Your task to perform on an android device: Do I have any events tomorrow? Image 0: 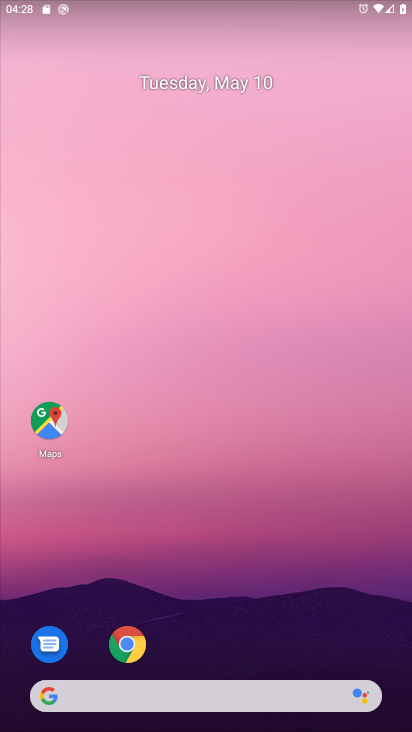
Step 0: drag from (219, 652) to (191, 243)
Your task to perform on an android device: Do I have any events tomorrow? Image 1: 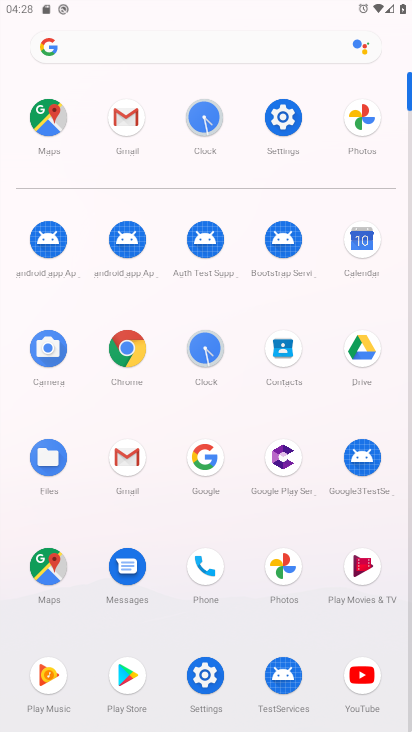
Step 1: click (363, 253)
Your task to perform on an android device: Do I have any events tomorrow? Image 2: 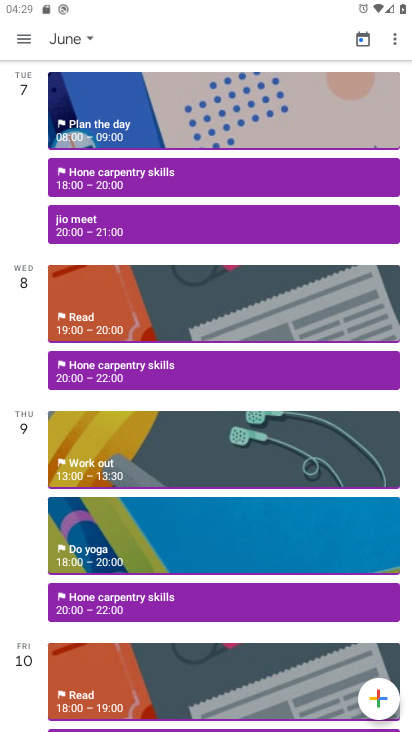
Step 2: click (15, 37)
Your task to perform on an android device: Do I have any events tomorrow? Image 3: 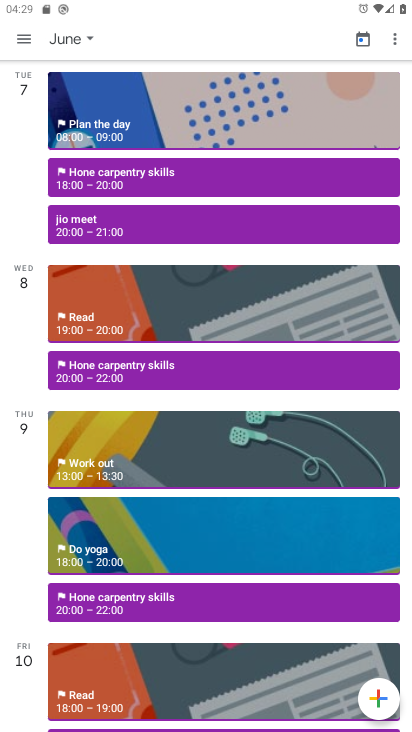
Step 3: click (19, 39)
Your task to perform on an android device: Do I have any events tomorrow? Image 4: 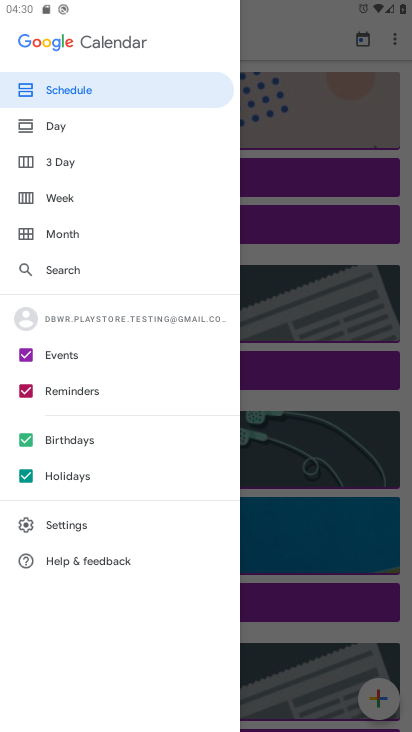
Step 4: click (22, 393)
Your task to perform on an android device: Do I have any events tomorrow? Image 5: 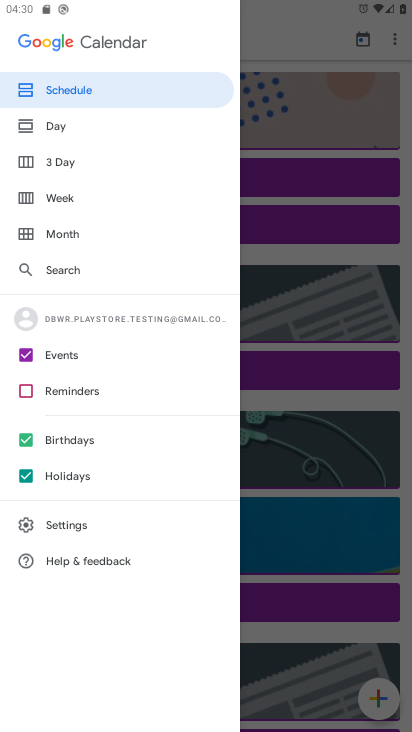
Step 5: click (30, 451)
Your task to perform on an android device: Do I have any events tomorrow? Image 6: 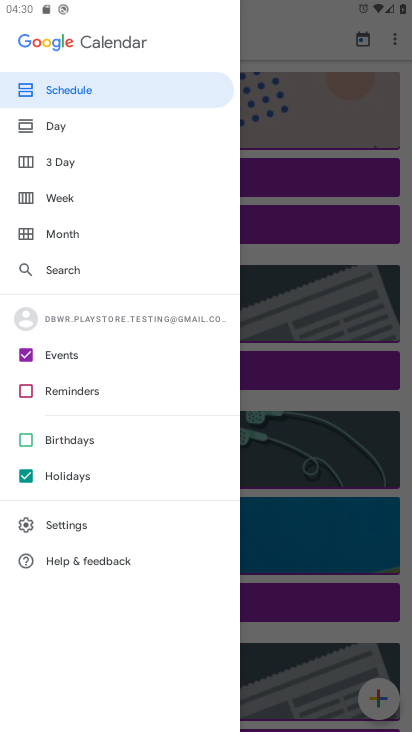
Step 6: click (28, 480)
Your task to perform on an android device: Do I have any events tomorrow? Image 7: 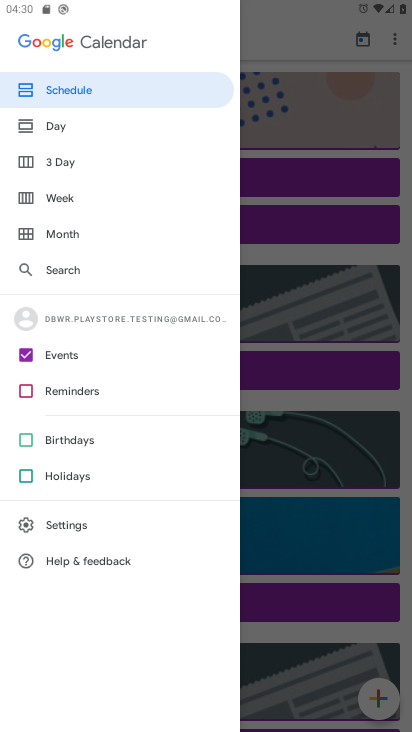
Step 7: click (40, 126)
Your task to perform on an android device: Do I have any events tomorrow? Image 8: 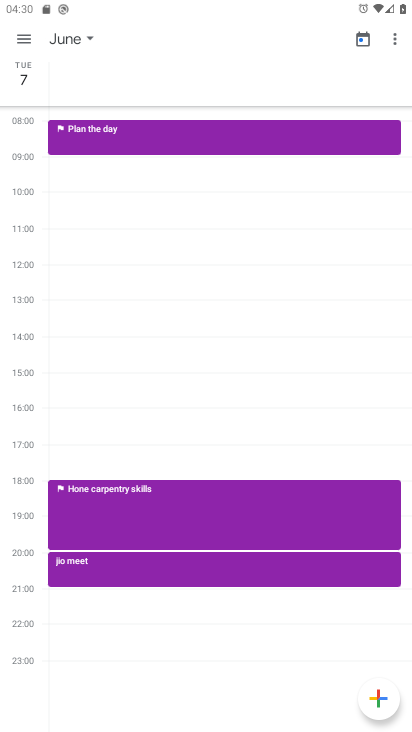
Step 8: click (66, 37)
Your task to perform on an android device: Do I have any events tomorrow? Image 9: 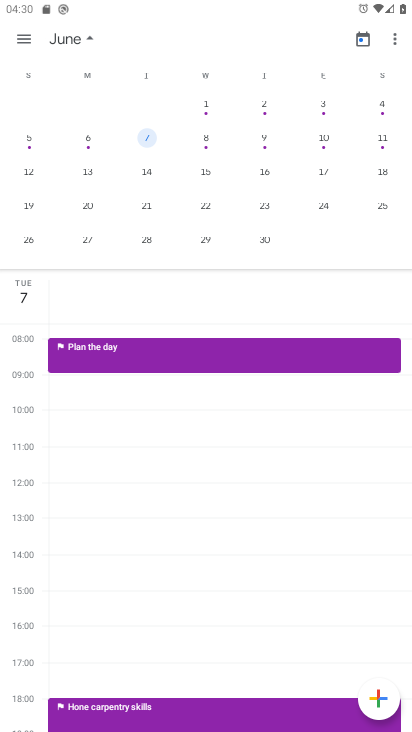
Step 9: drag from (53, 160) to (395, 177)
Your task to perform on an android device: Do I have any events tomorrow? Image 10: 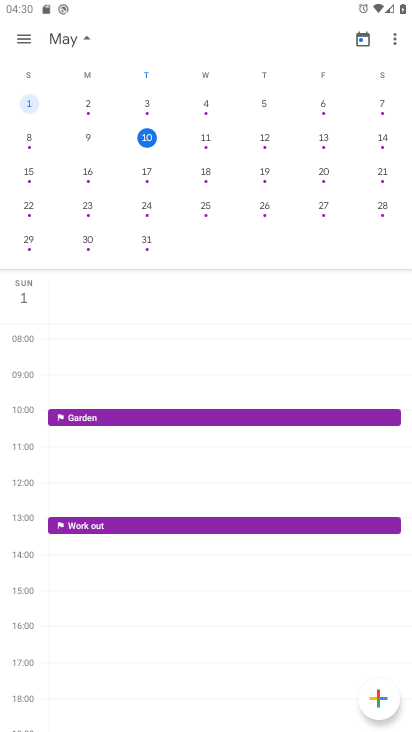
Step 10: click (200, 137)
Your task to perform on an android device: Do I have any events tomorrow? Image 11: 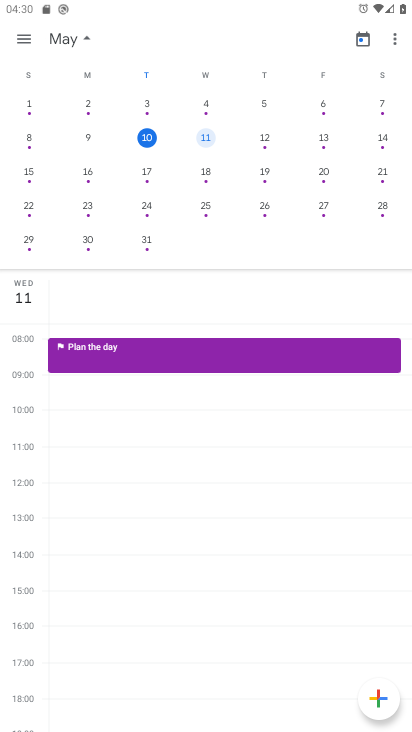
Step 11: drag from (15, 423) to (37, 186)
Your task to perform on an android device: Do I have any events tomorrow? Image 12: 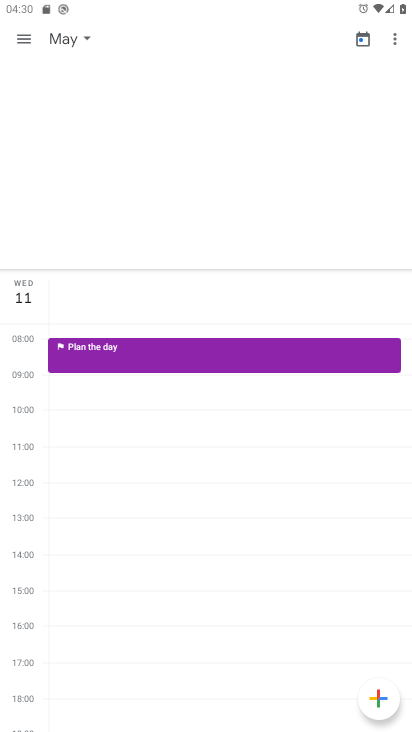
Step 12: drag from (27, 460) to (28, 164)
Your task to perform on an android device: Do I have any events tomorrow? Image 13: 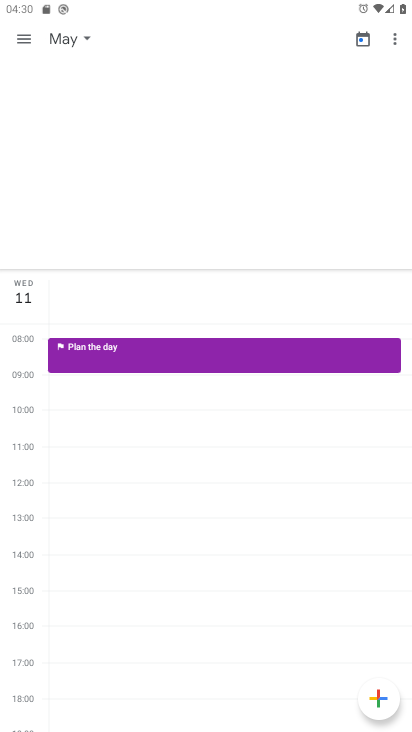
Step 13: drag from (29, 516) to (44, 260)
Your task to perform on an android device: Do I have any events tomorrow? Image 14: 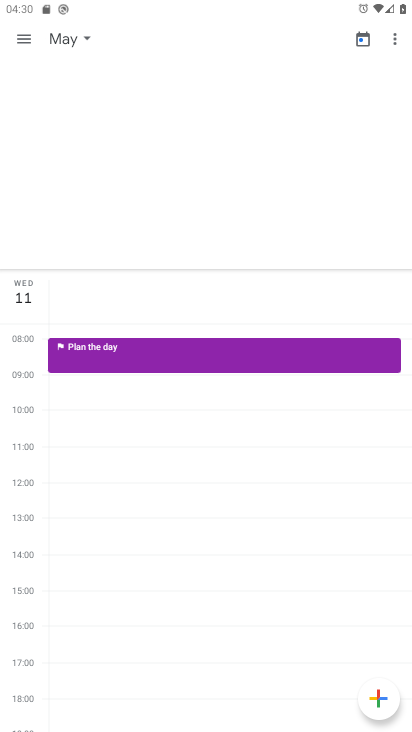
Step 14: click (38, 301)
Your task to perform on an android device: Do I have any events tomorrow? Image 15: 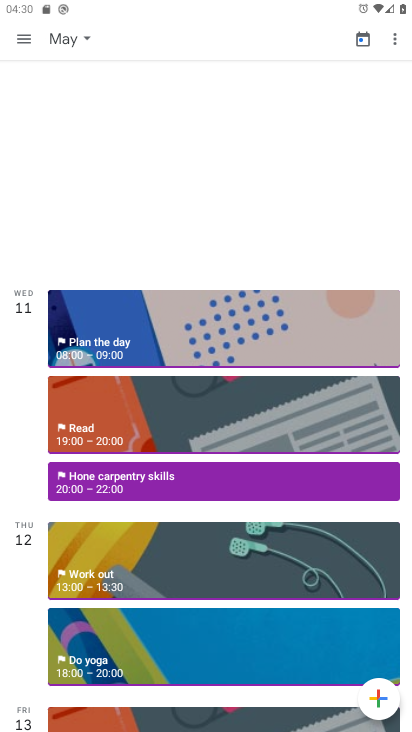
Step 15: click (20, 371)
Your task to perform on an android device: Do I have any events tomorrow? Image 16: 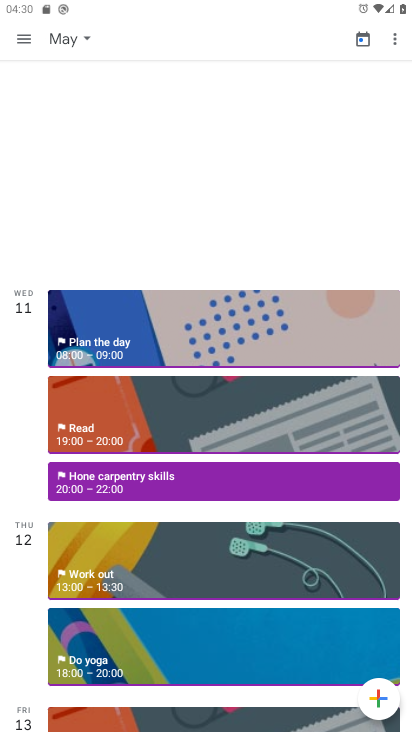
Step 16: click (84, 37)
Your task to perform on an android device: Do I have any events tomorrow? Image 17: 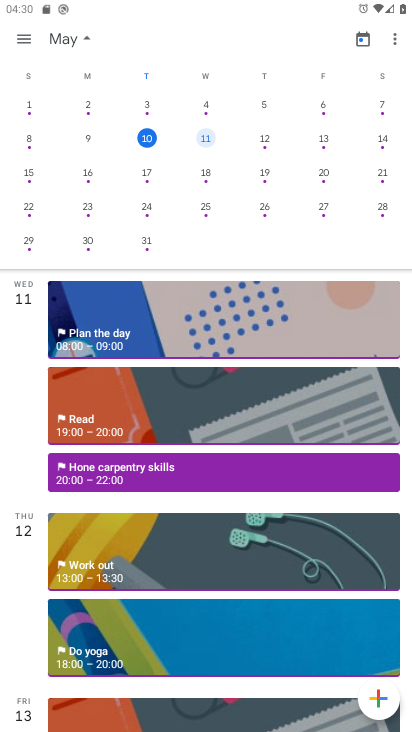
Step 17: drag from (24, 385) to (43, 53)
Your task to perform on an android device: Do I have any events tomorrow? Image 18: 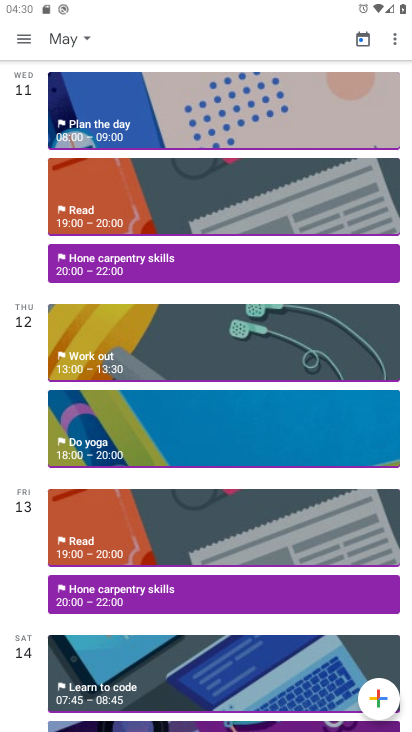
Step 18: click (85, 40)
Your task to perform on an android device: Do I have any events tomorrow? Image 19: 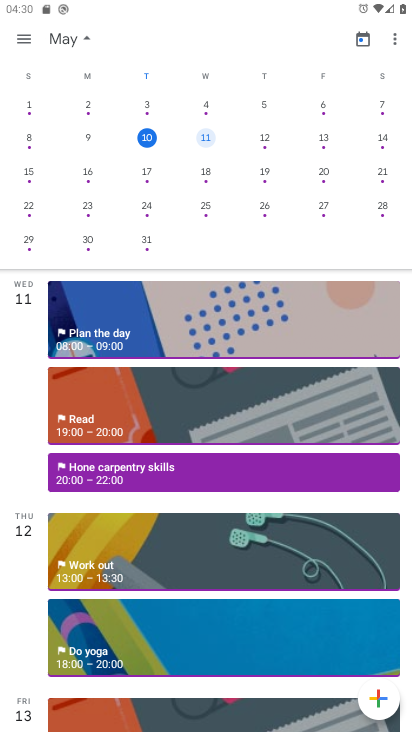
Step 19: click (28, 350)
Your task to perform on an android device: Do I have any events tomorrow? Image 20: 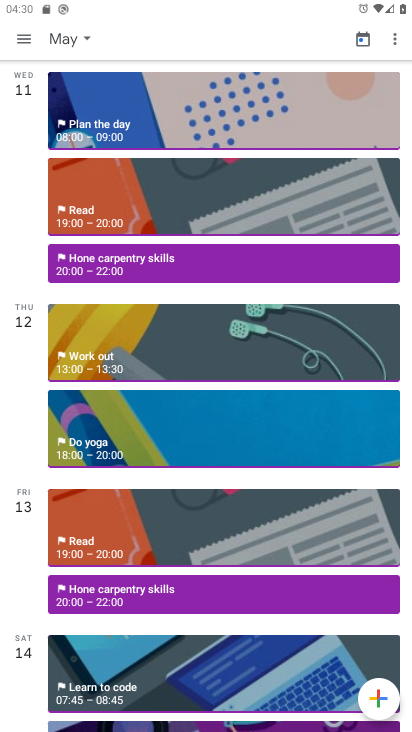
Step 20: click (29, 102)
Your task to perform on an android device: Do I have any events tomorrow? Image 21: 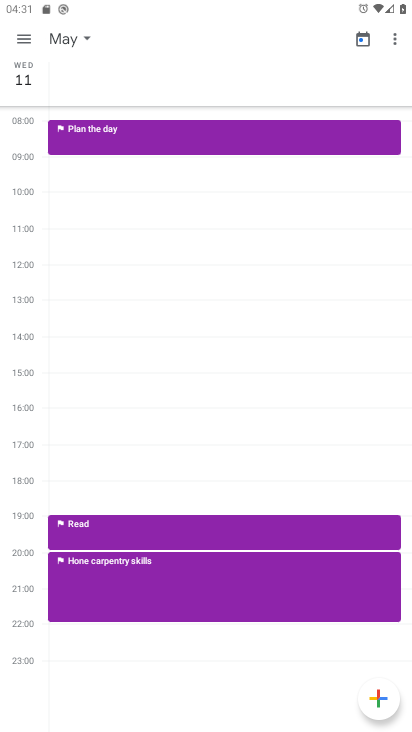
Step 21: task complete